Your task to perform on an android device: refresh tabs in the chrome app Image 0: 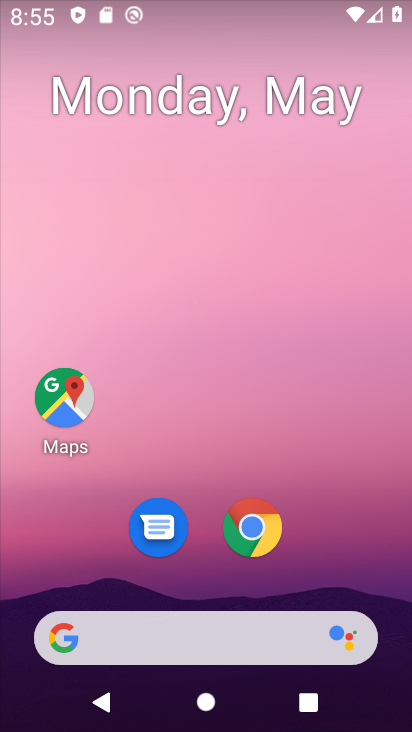
Step 0: drag from (338, 546) to (268, 2)
Your task to perform on an android device: refresh tabs in the chrome app Image 1: 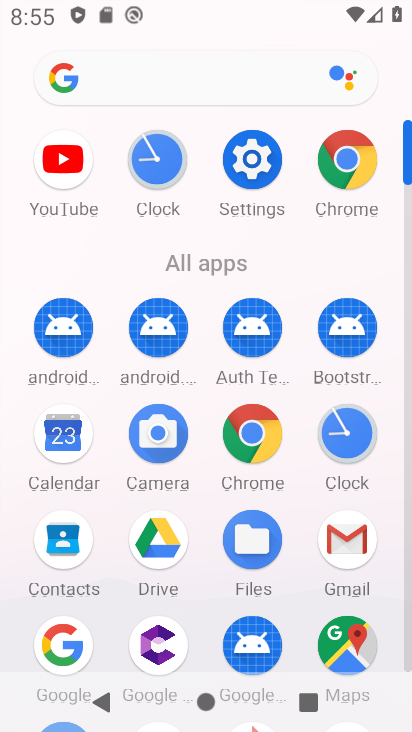
Step 1: drag from (11, 592) to (8, 287)
Your task to perform on an android device: refresh tabs in the chrome app Image 2: 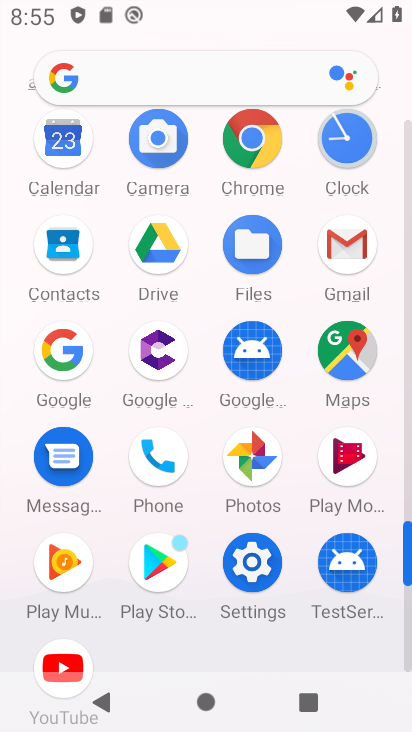
Step 2: click (247, 140)
Your task to perform on an android device: refresh tabs in the chrome app Image 3: 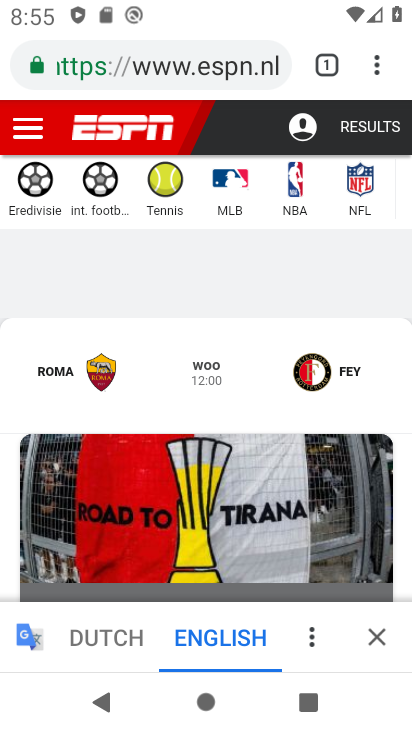
Step 3: click (379, 66)
Your task to perform on an android device: refresh tabs in the chrome app Image 4: 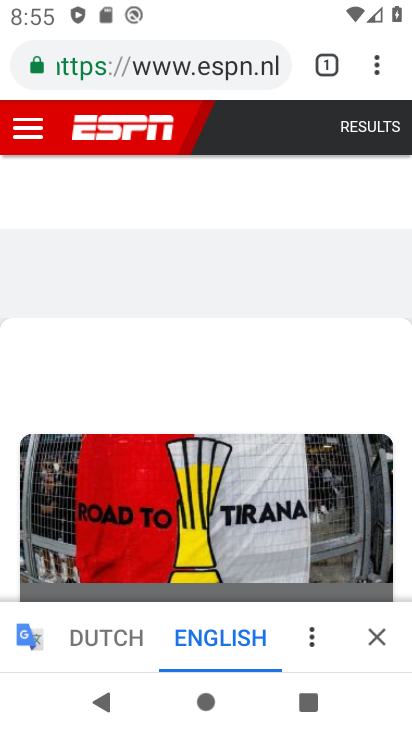
Step 4: task complete